Your task to perform on an android device: Toggle the flashlight Image 0: 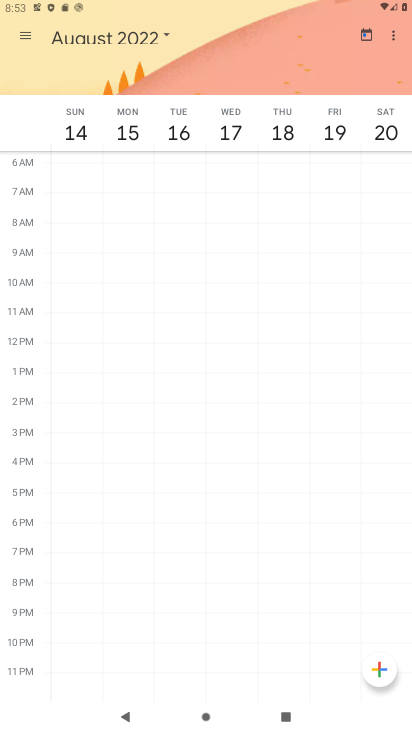
Step 0: press home button
Your task to perform on an android device: Toggle the flashlight Image 1: 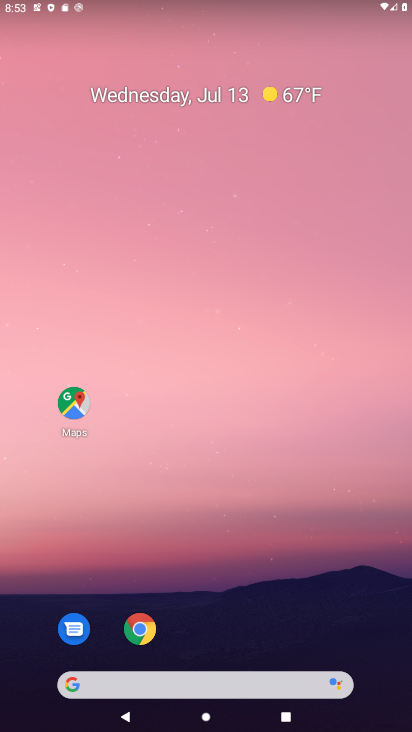
Step 1: drag from (232, 608) to (172, 6)
Your task to perform on an android device: Toggle the flashlight Image 2: 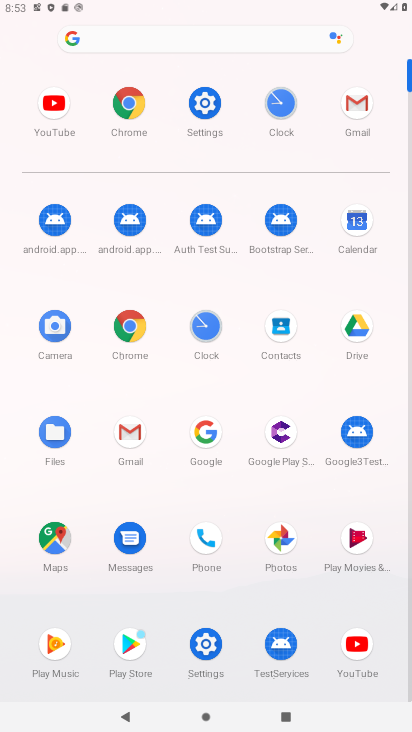
Step 2: click (209, 115)
Your task to perform on an android device: Toggle the flashlight Image 3: 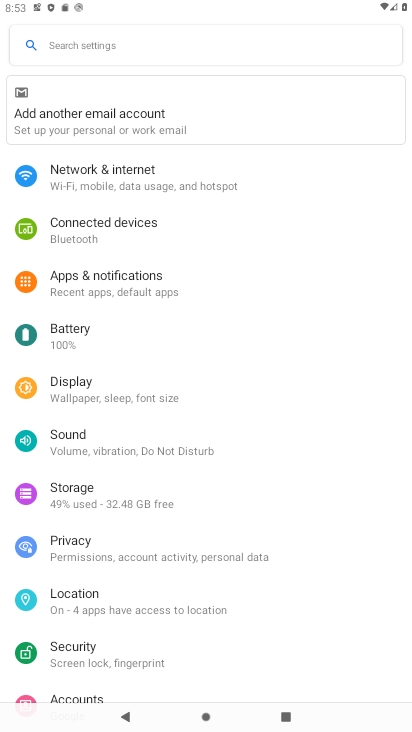
Step 3: click (193, 41)
Your task to perform on an android device: Toggle the flashlight Image 4: 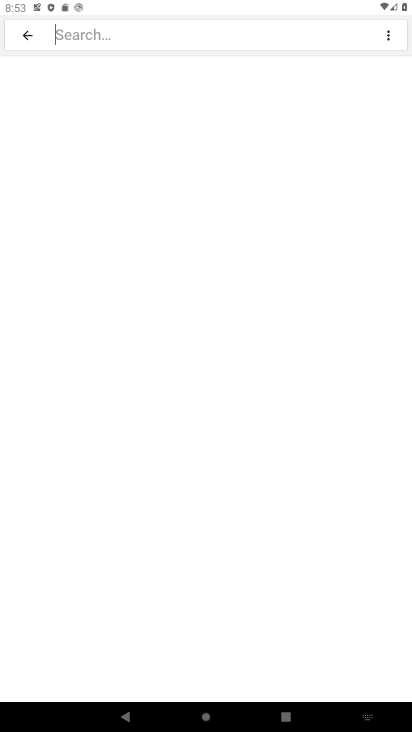
Step 4: type "flashlight"
Your task to perform on an android device: Toggle the flashlight Image 5: 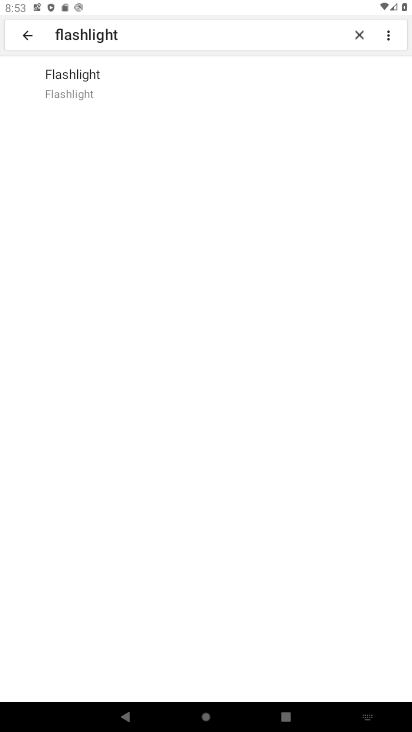
Step 5: click (142, 88)
Your task to perform on an android device: Toggle the flashlight Image 6: 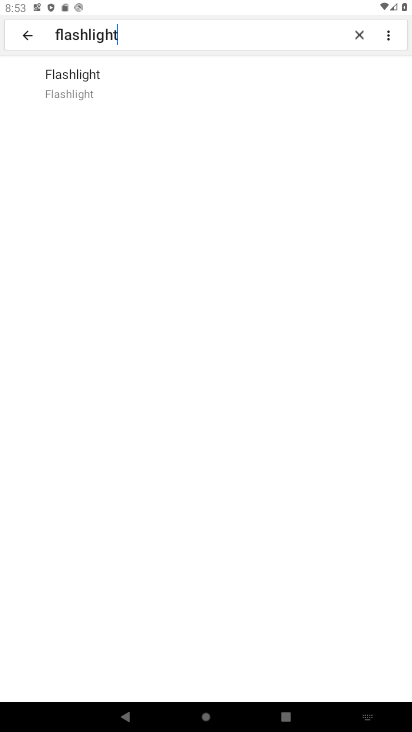
Step 6: click (142, 88)
Your task to perform on an android device: Toggle the flashlight Image 7: 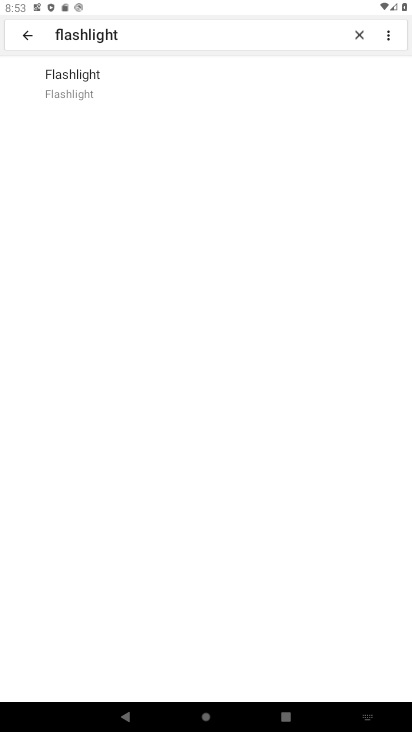
Step 7: task complete